Your task to perform on an android device: add a label to a message in the gmail app Image 0: 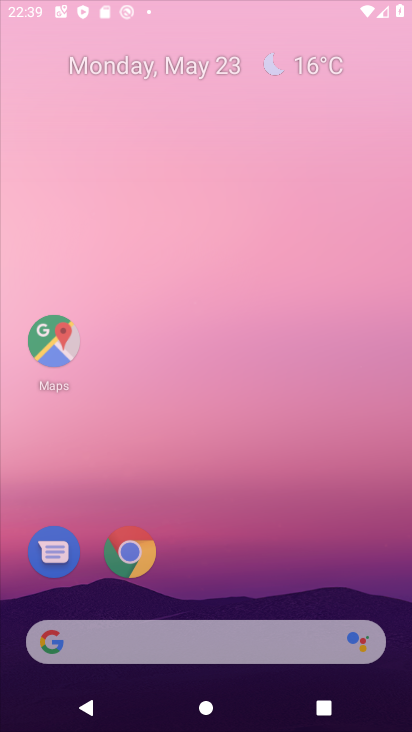
Step 0: click (249, 1)
Your task to perform on an android device: add a label to a message in the gmail app Image 1: 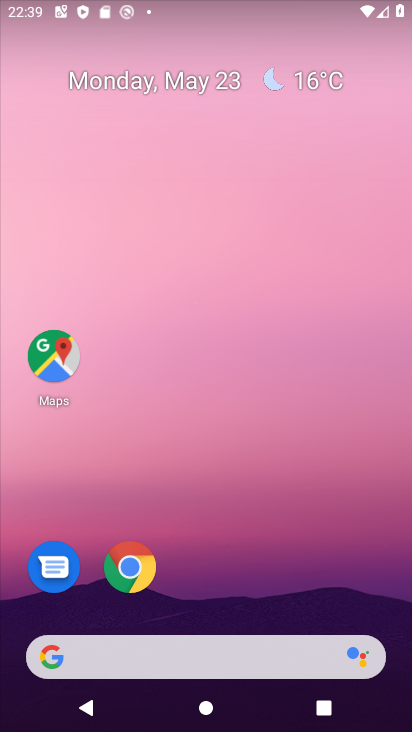
Step 1: drag from (206, 601) to (247, 66)
Your task to perform on an android device: add a label to a message in the gmail app Image 2: 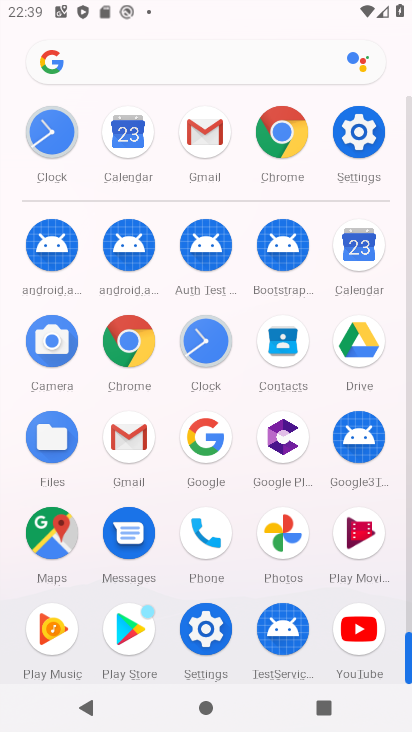
Step 2: click (132, 438)
Your task to perform on an android device: add a label to a message in the gmail app Image 3: 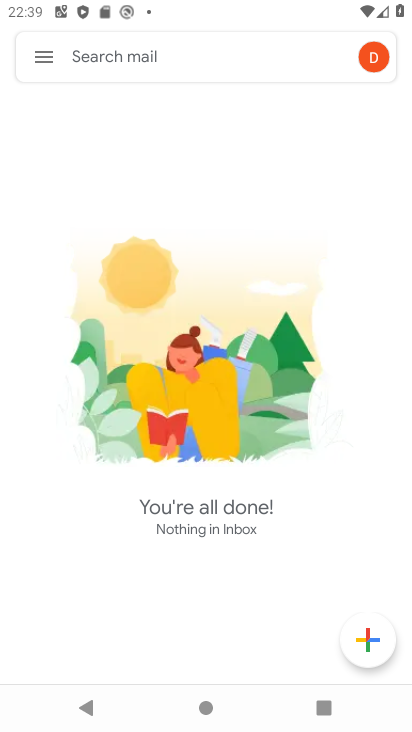
Step 3: click (33, 46)
Your task to perform on an android device: add a label to a message in the gmail app Image 4: 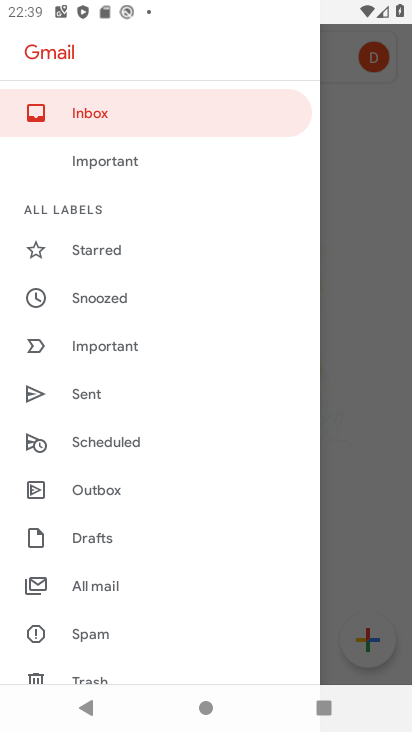
Step 4: click (126, 109)
Your task to perform on an android device: add a label to a message in the gmail app Image 5: 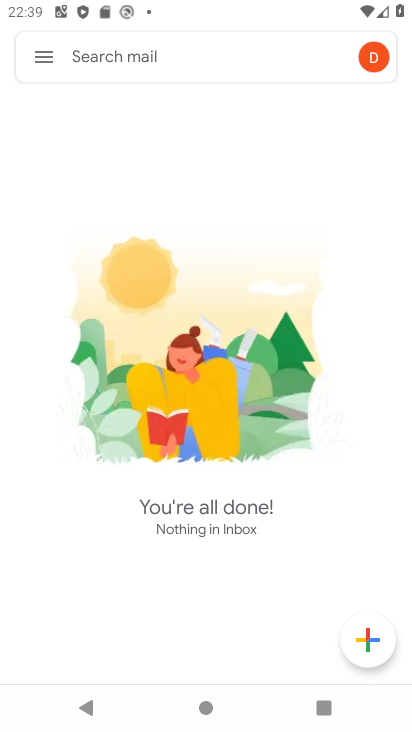
Step 5: task complete